Your task to perform on an android device: Open Youtube and go to the subscriptions tab Image 0: 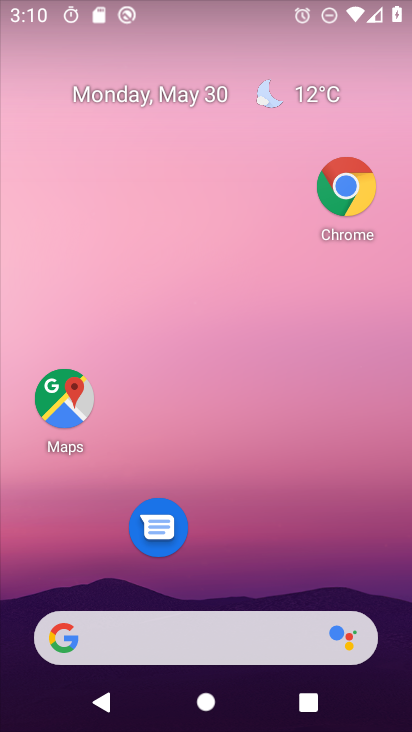
Step 0: drag from (250, 575) to (201, 15)
Your task to perform on an android device: Open Youtube and go to the subscriptions tab Image 1: 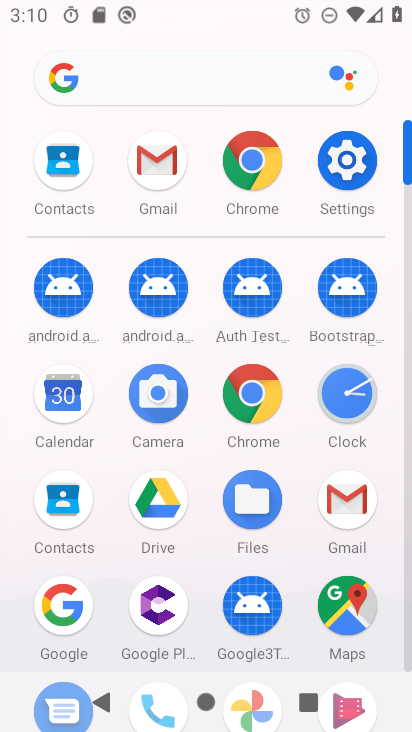
Step 1: drag from (200, 528) to (251, 109)
Your task to perform on an android device: Open Youtube and go to the subscriptions tab Image 2: 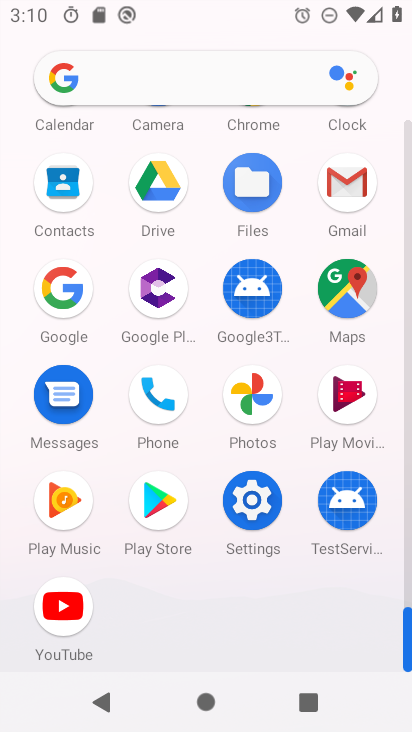
Step 2: click (63, 598)
Your task to perform on an android device: Open Youtube and go to the subscriptions tab Image 3: 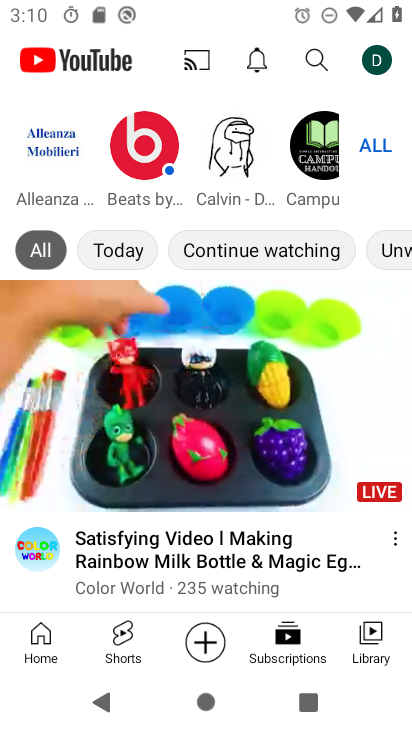
Step 3: click (284, 625)
Your task to perform on an android device: Open Youtube and go to the subscriptions tab Image 4: 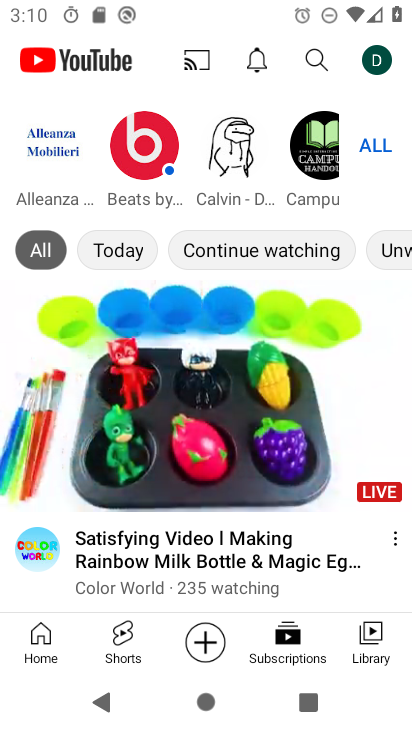
Step 4: task complete